Your task to perform on an android device: Is it going to rain today? Image 0: 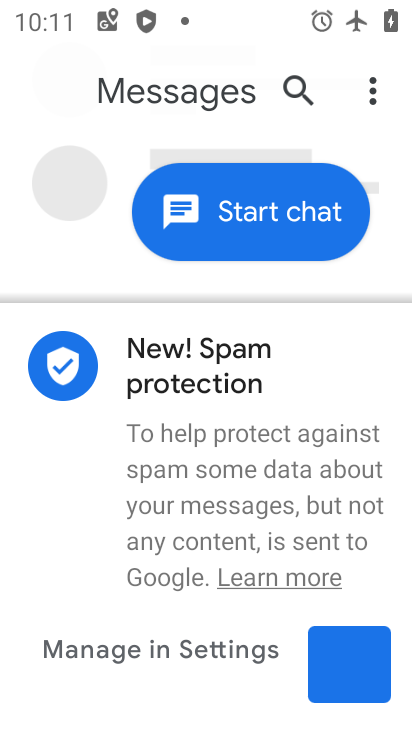
Step 0: press home button
Your task to perform on an android device: Is it going to rain today? Image 1: 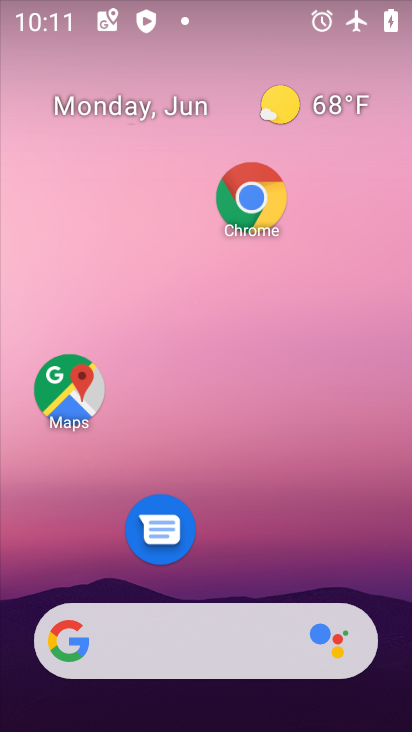
Step 1: drag from (208, 561) to (212, 148)
Your task to perform on an android device: Is it going to rain today? Image 2: 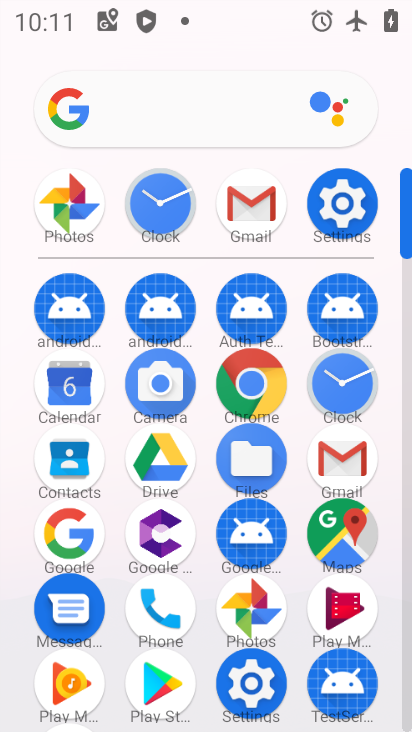
Step 2: click (76, 522)
Your task to perform on an android device: Is it going to rain today? Image 3: 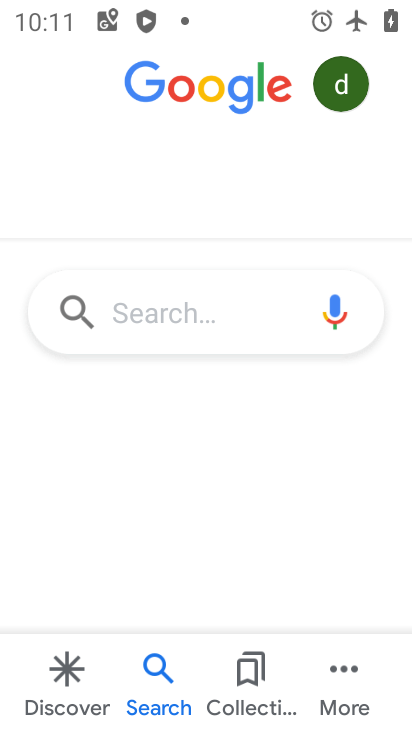
Step 3: click (152, 309)
Your task to perform on an android device: Is it going to rain today? Image 4: 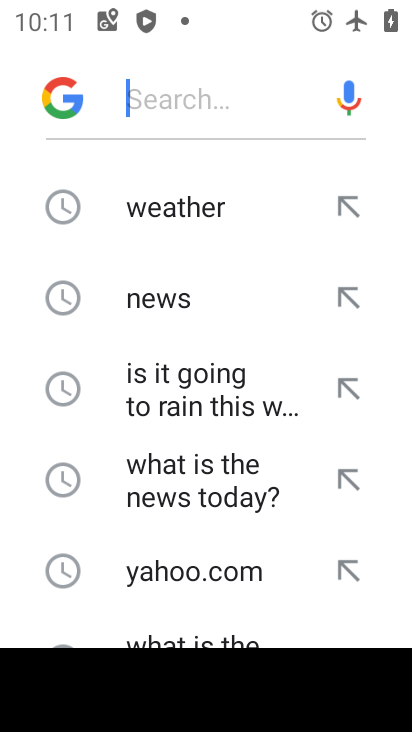
Step 4: click (198, 224)
Your task to perform on an android device: Is it going to rain today? Image 5: 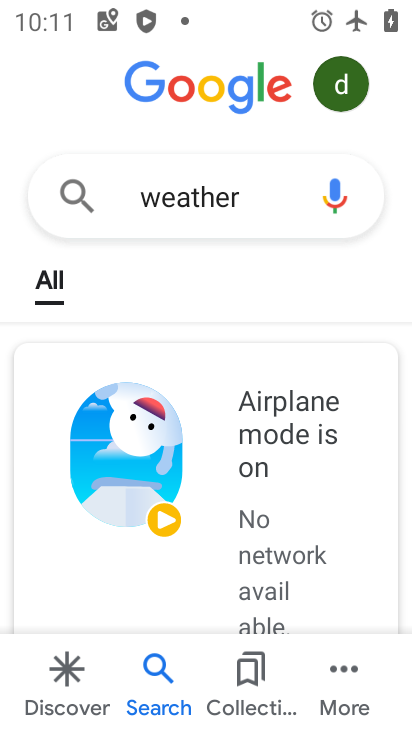
Step 5: task complete